Your task to perform on an android device: turn off airplane mode Image 0: 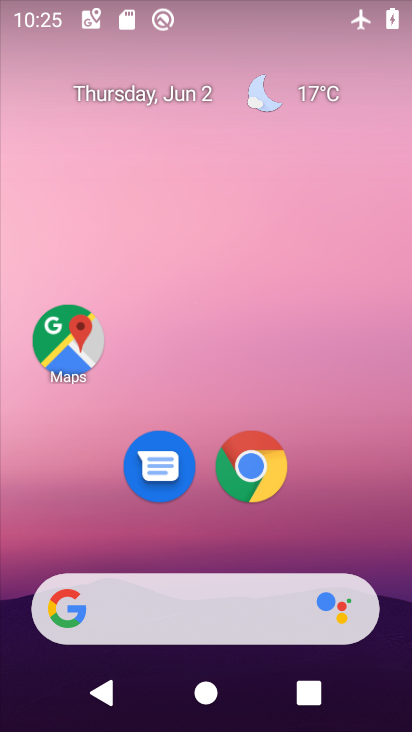
Step 0: drag from (266, 542) to (308, 337)
Your task to perform on an android device: turn off airplane mode Image 1: 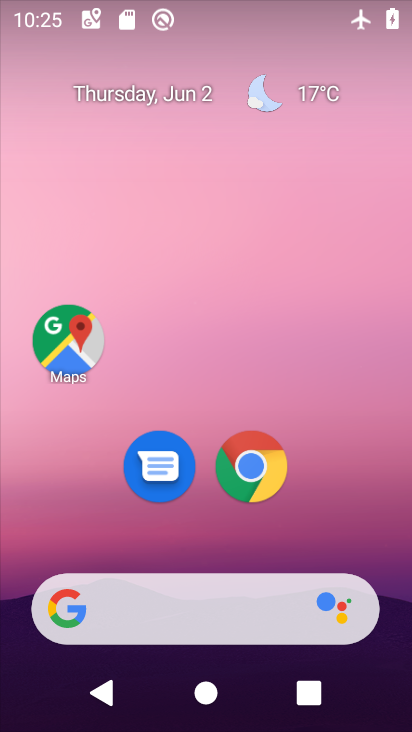
Step 1: drag from (227, 564) to (297, 243)
Your task to perform on an android device: turn off airplane mode Image 2: 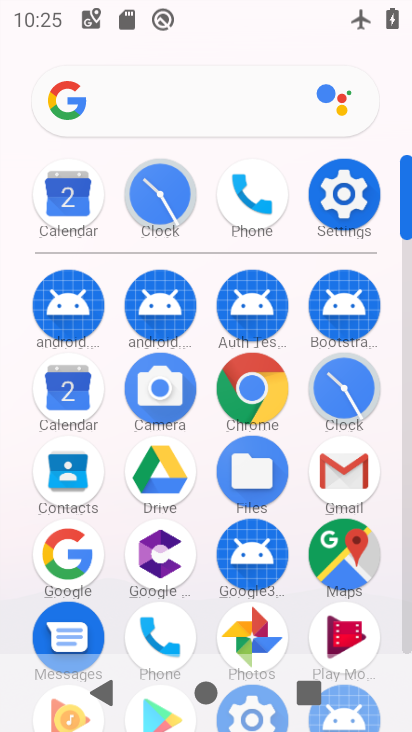
Step 2: click (327, 162)
Your task to perform on an android device: turn off airplane mode Image 3: 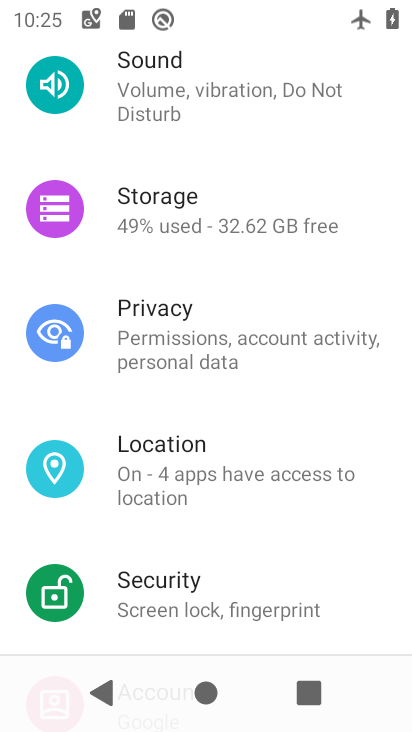
Step 3: click (322, 187)
Your task to perform on an android device: turn off airplane mode Image 4: 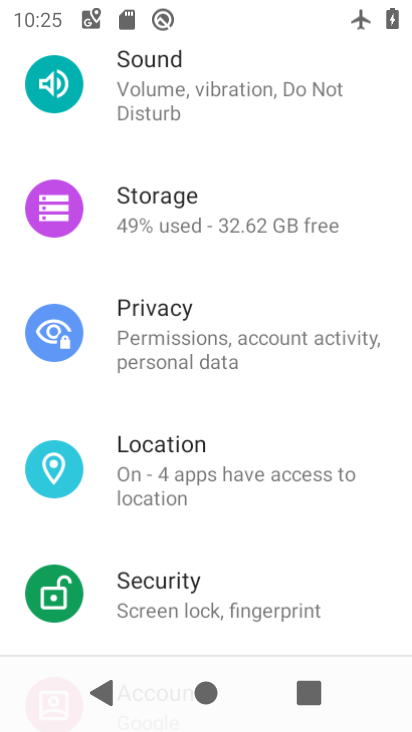
Step 4: drag from (240, 171) to (233, 549)
Your task to perform on an android device: turn off airplane mode Image 5: 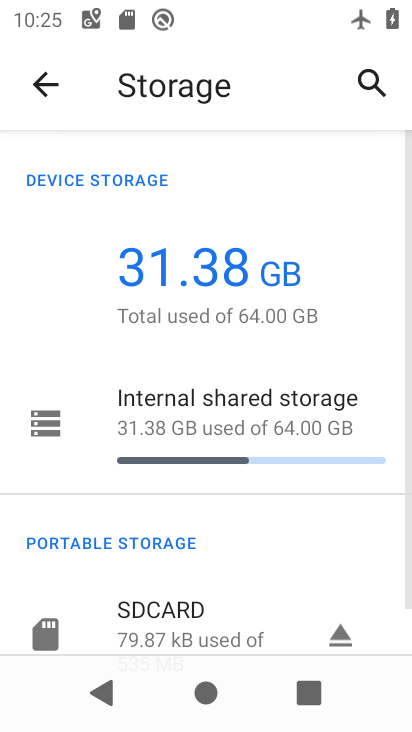
Step 5: click (37, 104)
Your task to perform on an android device: turn off airplane mode Image 6: 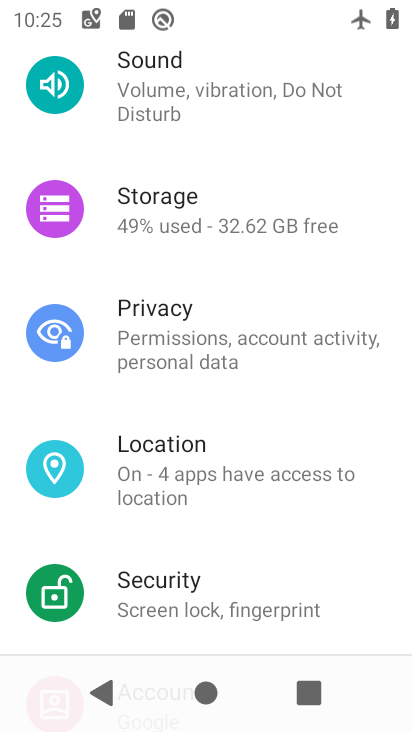
Step 6: drag from (276, 149) to (262, 593)
Your task to perform on an android device: turn off airplane mode Image 7: 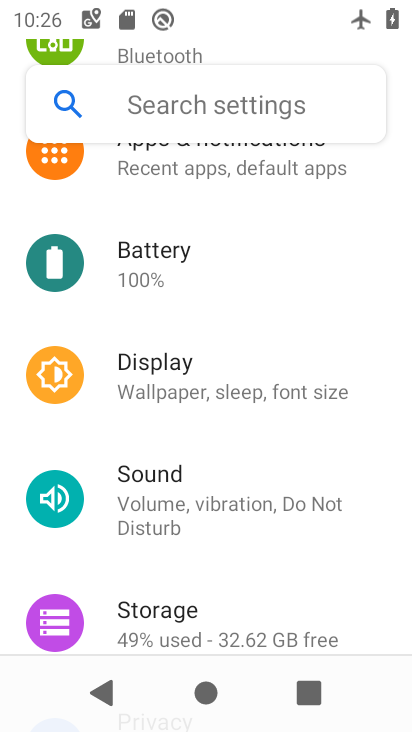
Step 7: drag from (222, 173) to (213, 568)
Your task to perform on an android device: turn off airplane mode Image 8: 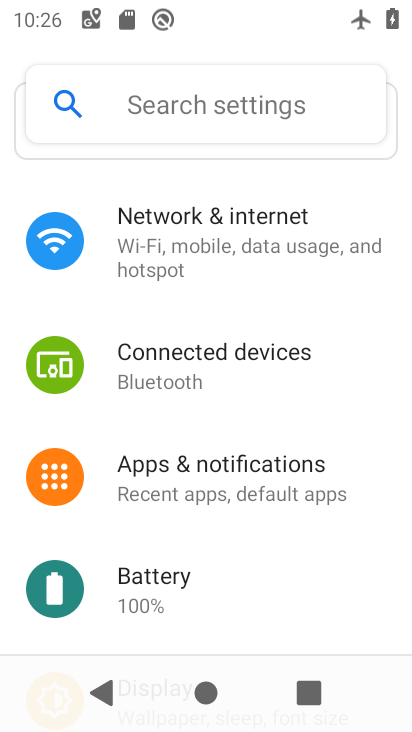
Step 8: drag from (287, 193) to (241, 556)
Your task to perform on an android device: turn off airplane mode Image 9: 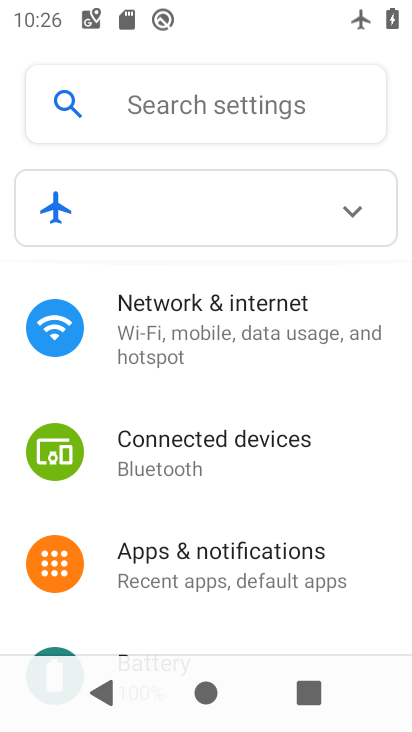
Step 9: click (208, 208)
Your task to perform on an android device: turn off airplane mode Image 10: 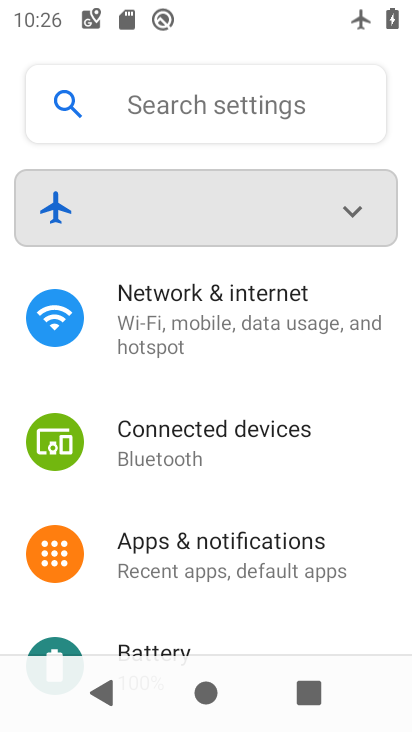
Step 10: click (221, 333)
Your task to perform on an android device: turn off airplane mode Image 11: 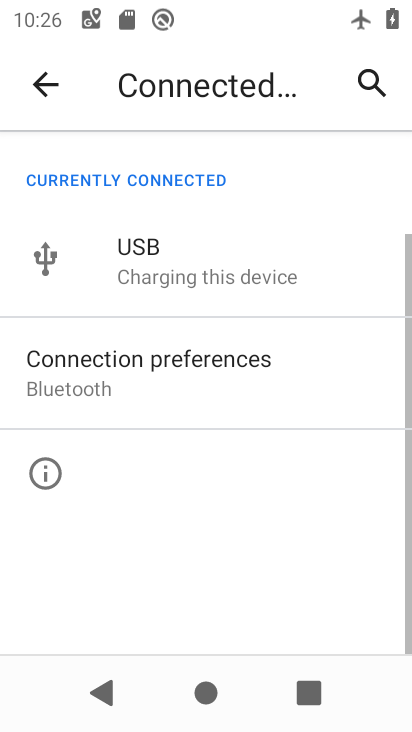
Step 11: click (222, 224)
Your task to perform on an android device: turn off airplane mode Image 12: 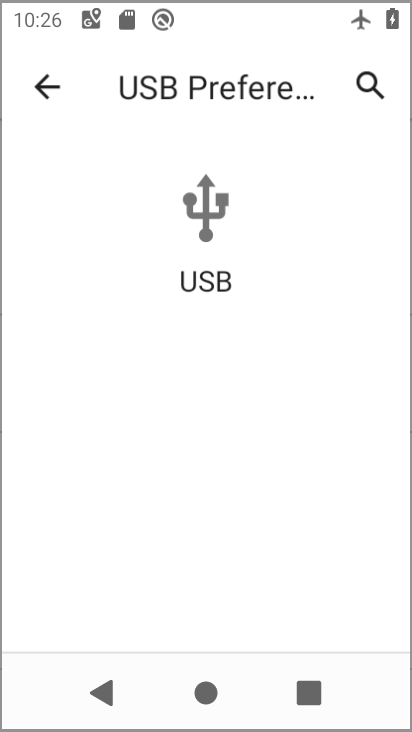
Step 12: click (88, 65)
Your task to perform on an android device: turn off airplane mode Image 13: 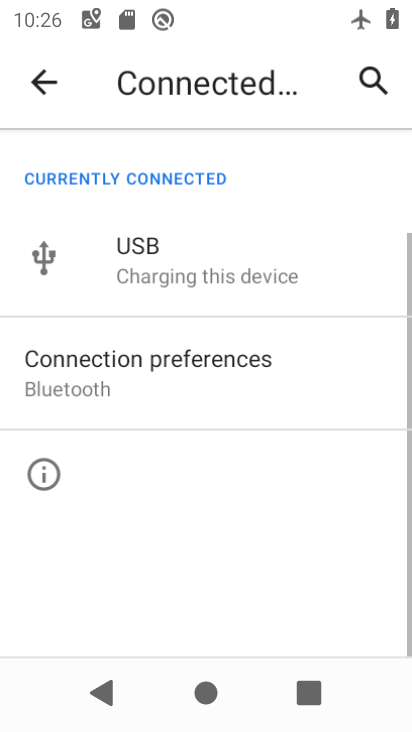
Step 13: click (55, 102)
Your task to perform on an android device: turn off airplane mode Image 14: 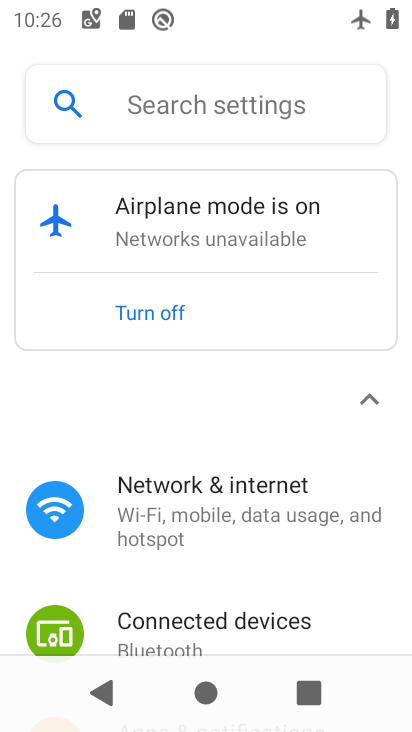
Step 14: click (219, 487)
Your task to perform on an android device: turn off airplane mode Image 15: 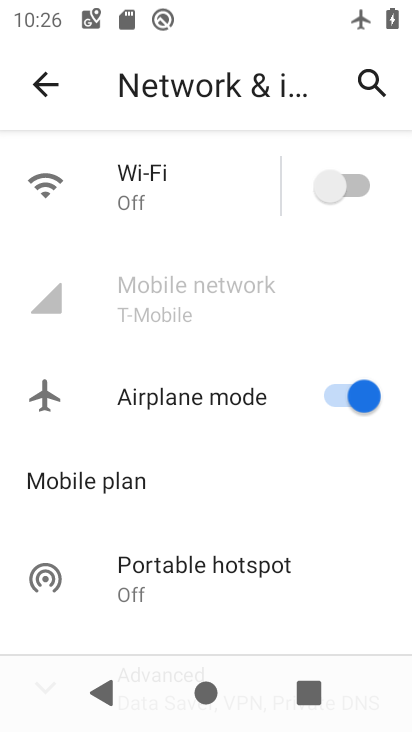
Step 15: click (325, 387)
Your task to perform on an android device: turn off airplane mode Image 16: 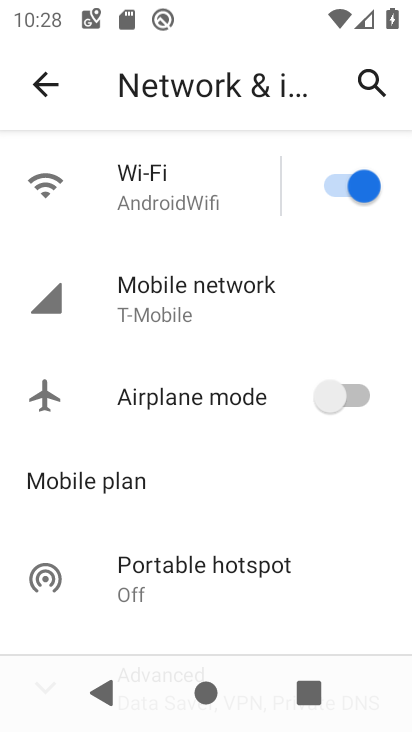
Step 16: task complete